Your task to perform on an android device: turn on airplane mode Image 0: 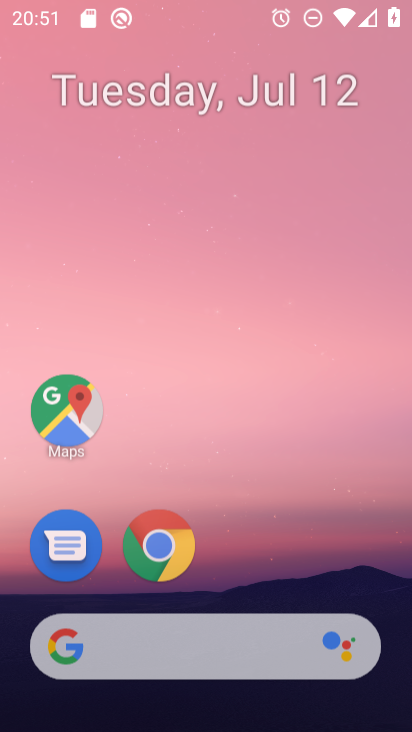
Step 0: drag from (348, 572) to (339, 85)
Your task to perform on an android device: turn on airplane mode Image 1: 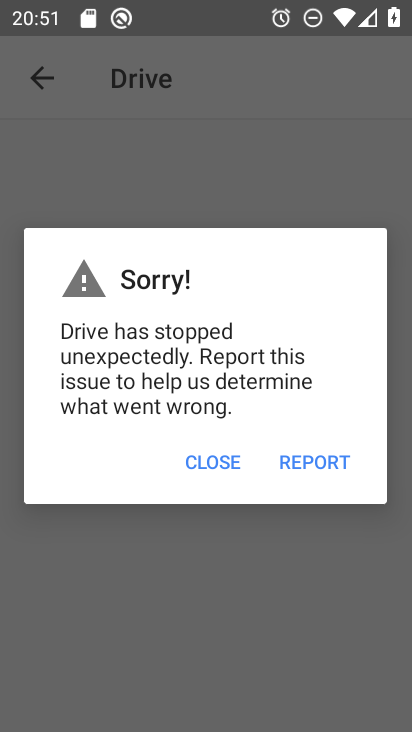
Step 1: press home button
Your task to perform on an android device: turn on airplane mode Image 2: 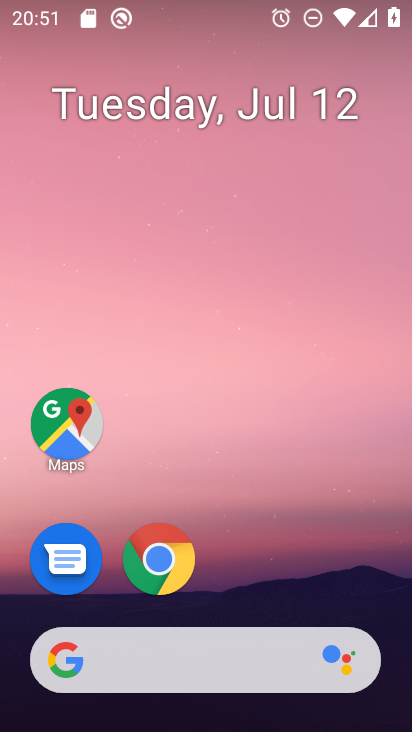
Step 2: drag from (367, 582) to (346, 129)
Your task to perform on an android device: turn on airplane mode Image 3: 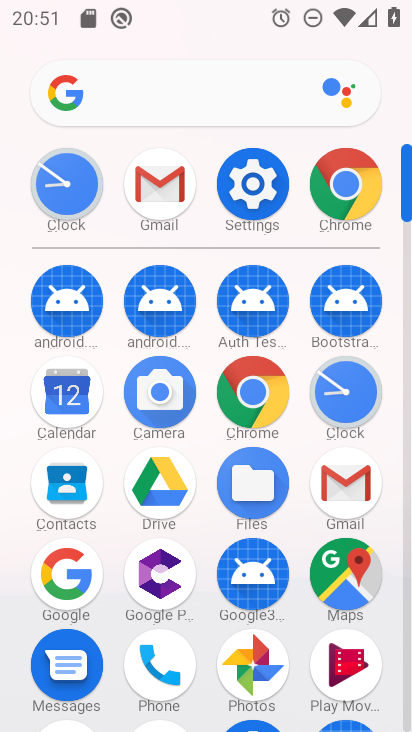
Step 3: click (258, 185)
Your task to perform on an android device: turn on airplane mode Image 4: 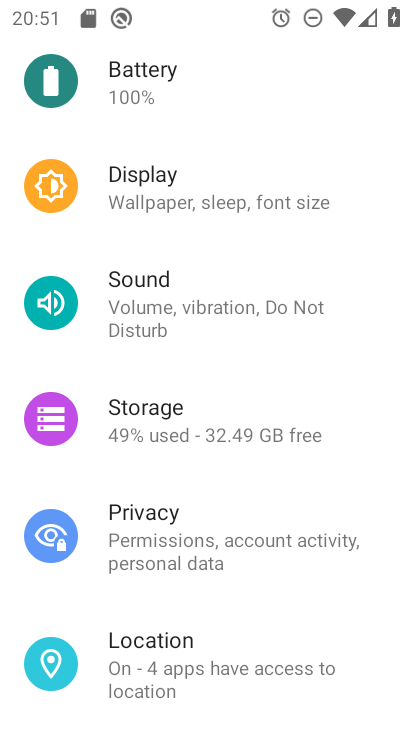
Step 4: drag from (332, 174) to (352, 287)
Your task to perform on an android device: turn on airplane mode Image 5: 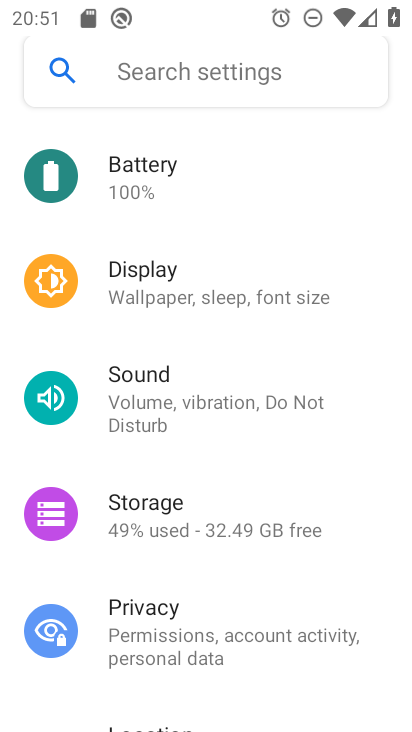
Step 5: drag from (359, 213) to (365, 349)
Your task to perform on an android device: turn on airplane mode Image 6: 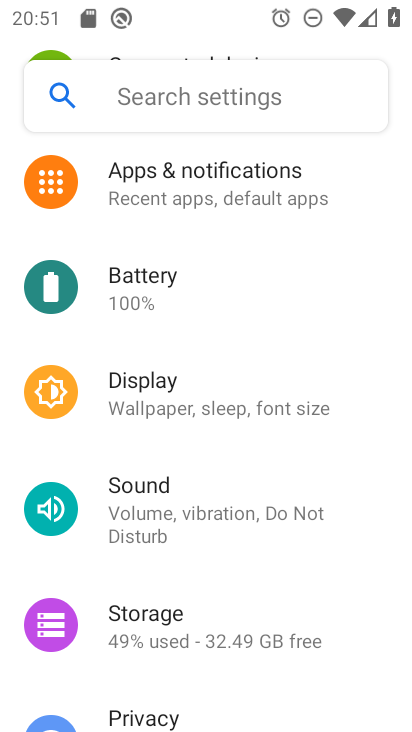
Step 6: drag from (360, 206) to (367, 299)
Your task to perform on an android device: turn on airplane mode Image 7: 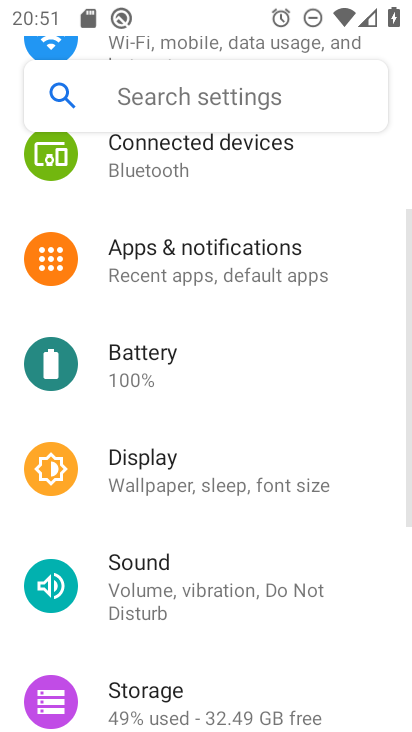
Step 7: drag from (365, 209) to (362, 360)
Your task to perform on an android device: turn on airplane mode Image 8: 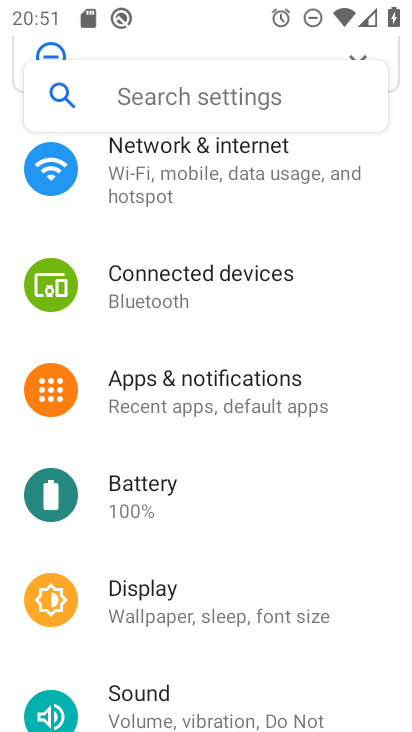
Step 8: drag from (360, 228) to (362, 422)
Your task to perform on an android device: turn on airplane mode Image 9: 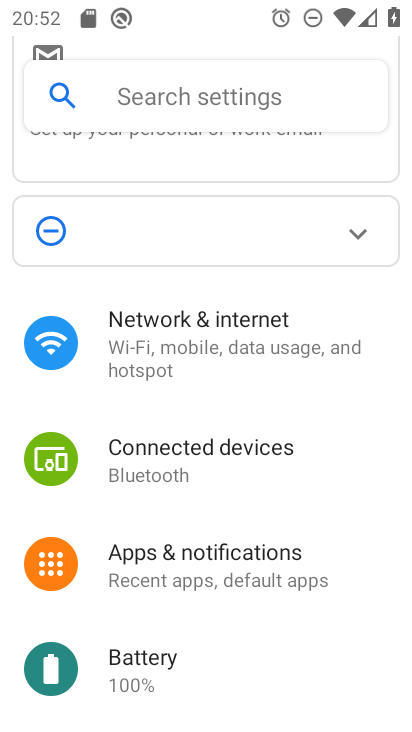
Step 9: click (327, 351)
Your task to perform on an android device: turn on airplane mode Image 10: 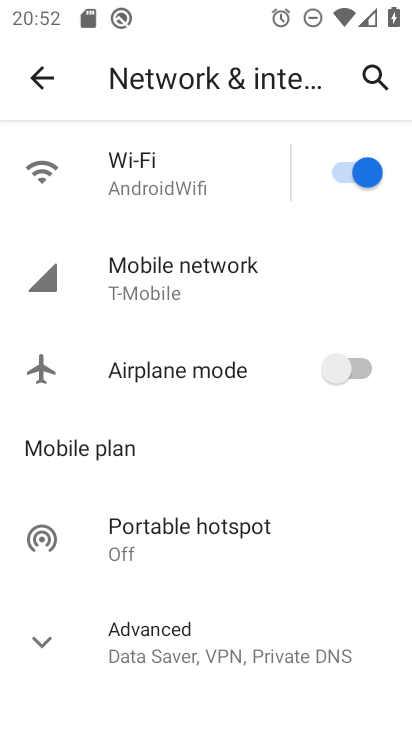
Step 10: click (332, 360)
Your task to perform on an android device: turn on airplane mode Image 11: 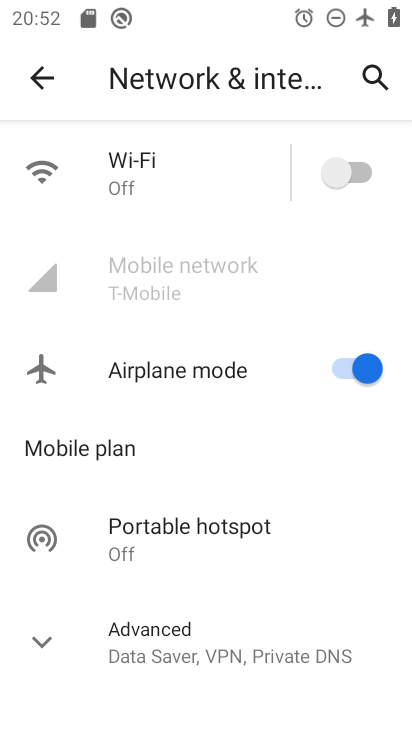
Step 11: task complete